Your task to perform on an android device: turn pop-ups off in chrome Image 0: 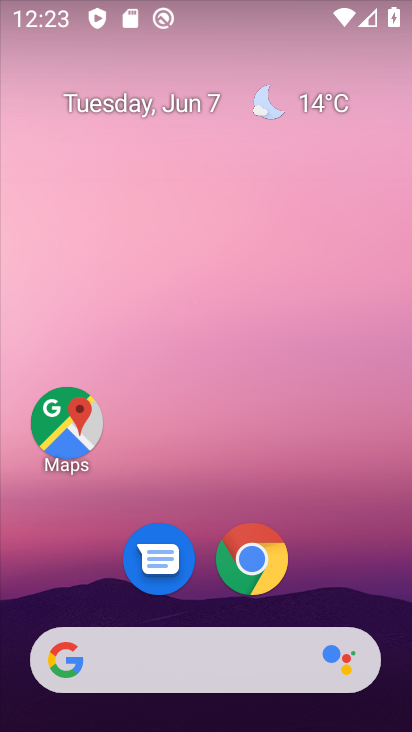
Step 0: click (268, 561)
Your task to perform on an android device: turn pop-ups off in chrome Image 1: 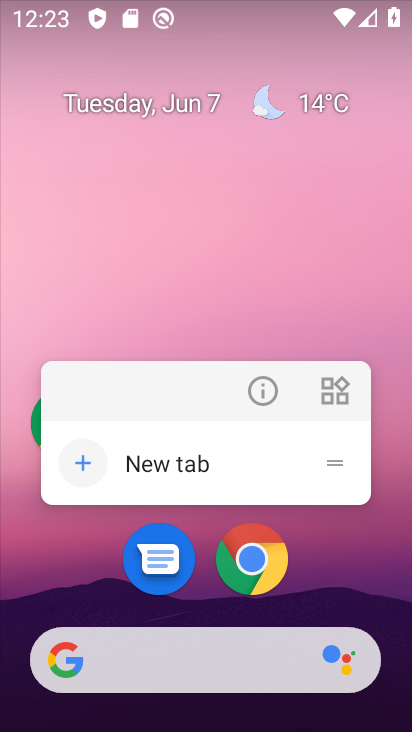
Step 1: click (264, 564)
Your task to perform on an android device: turn pop-ups off in chrome Image 2: 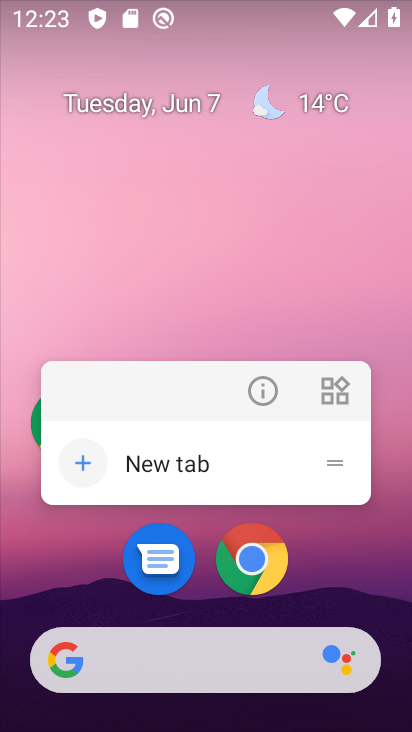
Step 2: click (261, 564)
Your task to perform on an android device: turn pop-ups off in chrome Image 3: 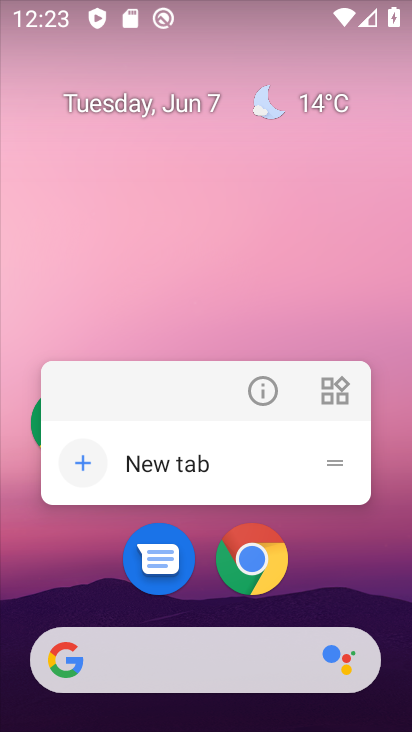
Step 3: click (261, 564)
Your task to perform on an android device: turn pop-ups off in chrome Image 4: 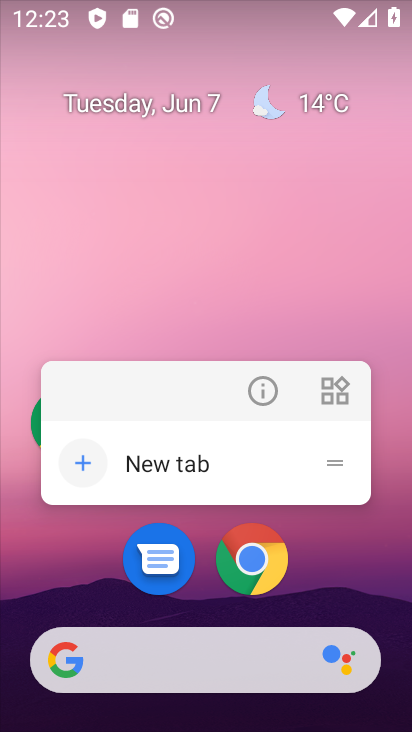
Step 4: click (260, 563)
Your task to perform on an android device: turn pop-ups off in chrome Image 5: 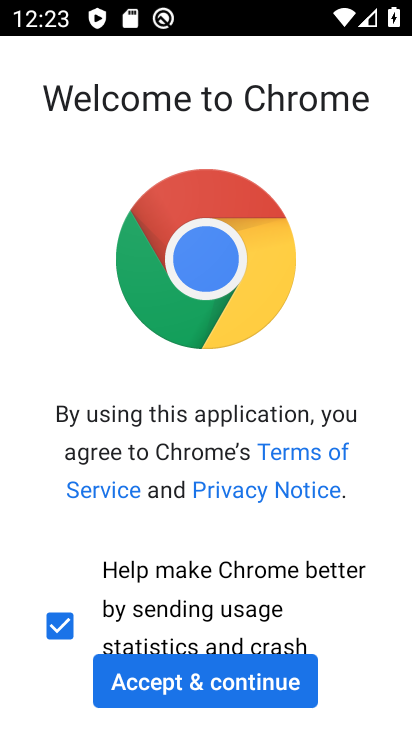
Step 5: click (246, 691)
Your task to perform on an android device: turn pop-ups off in chrome Image 6: 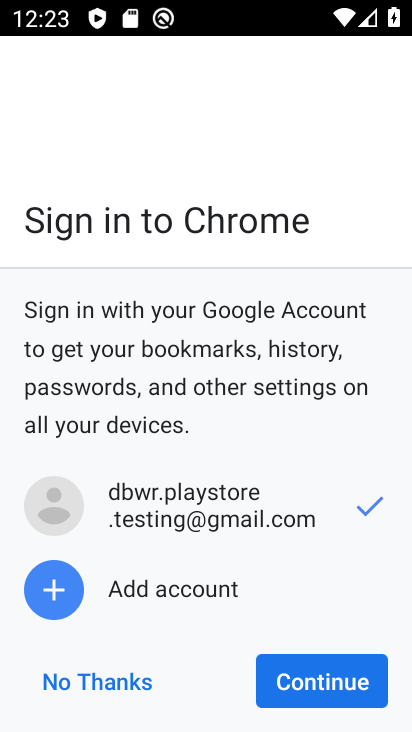
Step 6: click (299, 692)
Your task to perform on an android device: turn pop-ups off in chrome Image 7: 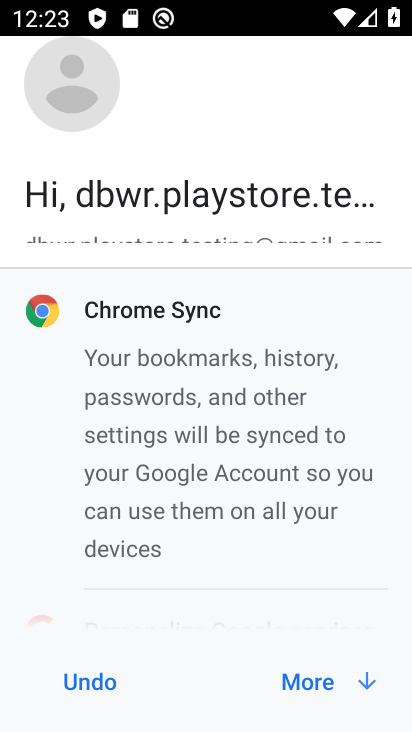
Step 7: click (318, 693)
Your task to perform on an android device: turn pop-ups off in chrome Image 8: 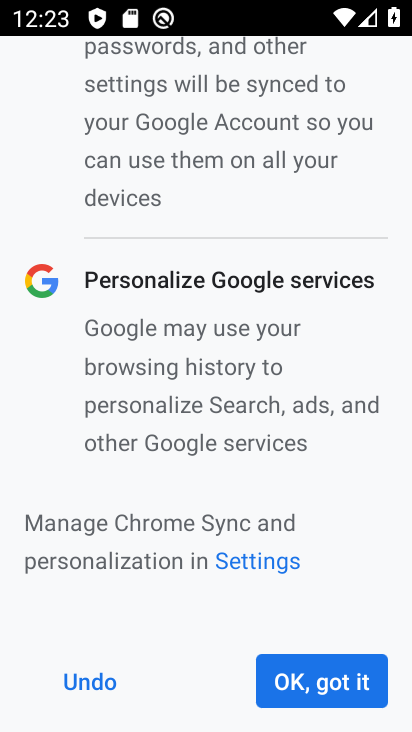
Step 8: click (318, 693)
Your task to perform on an android device: turn pop-ups off in chrome Image 9: 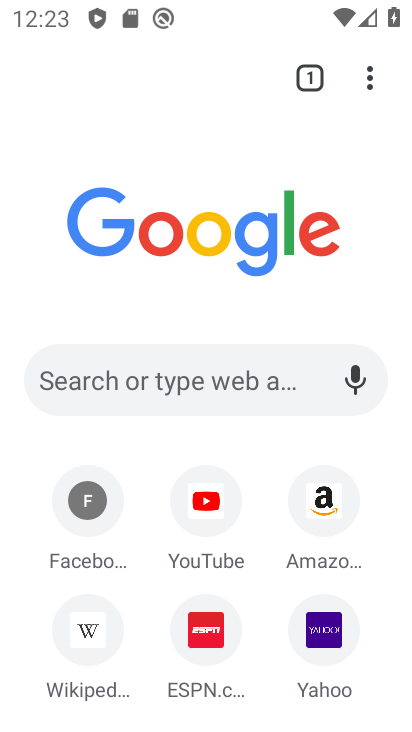
Step 9: drag from (386, 68) to (249, 618)
Your task to perform on an android device: turn pop-ups off in chrome Image 10: 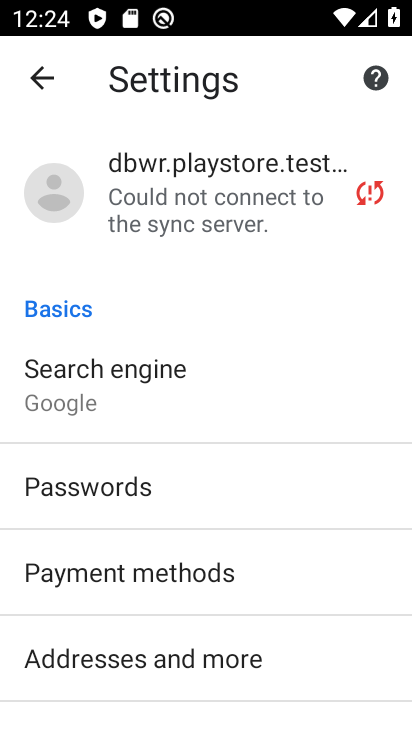
Step 10: drag from (149, 629) to (285, 240)
Your task to perform on an android device: turn pop-ups off in chrome Image 11: 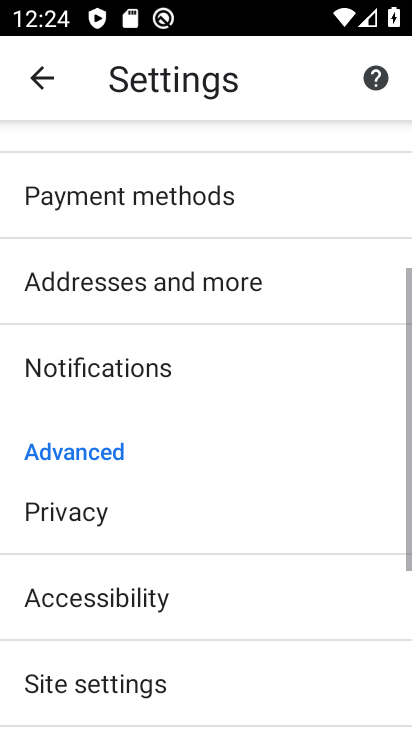
Step 11: drag from (155, 623) to (205, 430)
Your task to perform on an android device: turn pop-ups off in chrome Image 12: 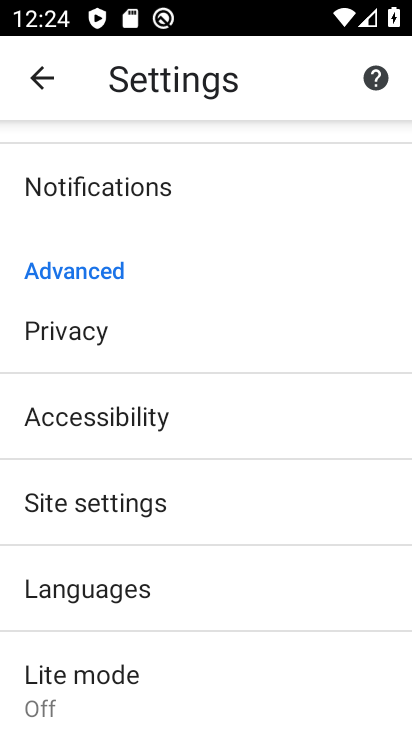
Step 12: click (154, 516)
Your task to perform on an android device: turn pop-ups off in chrome Image 13: 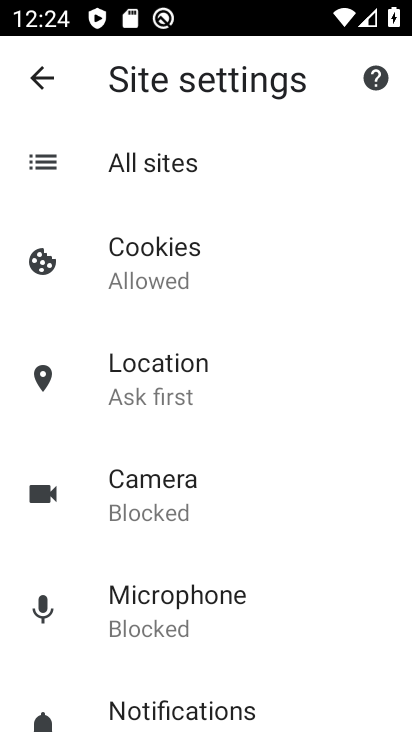
Step 13: drag from (178, 638) to (231, 409)
Your task to perform on an android device: turn pop-ups off in chrome Image 14: 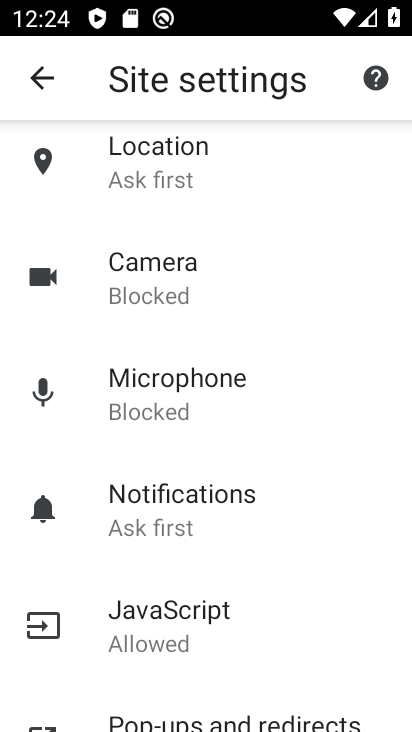
Step 14: drag from (216, 666) to (296, 338)
Your task to perform on an android device: turn pop-ups off in chrome Image 15: 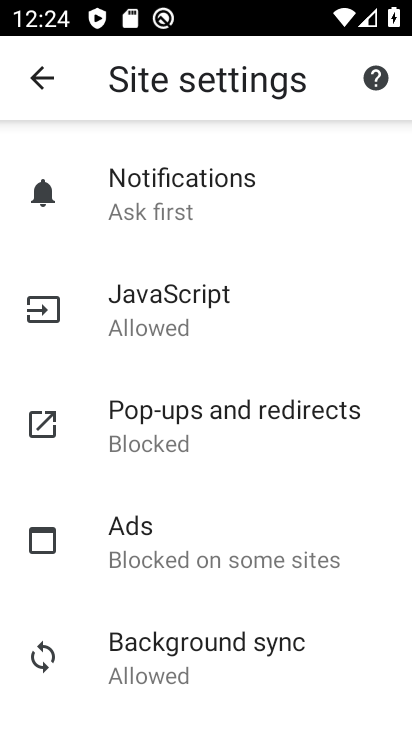
Step 15: click (230, 468)
Your task to perform on an android device: turn pop-ups off in chrome Image 16: 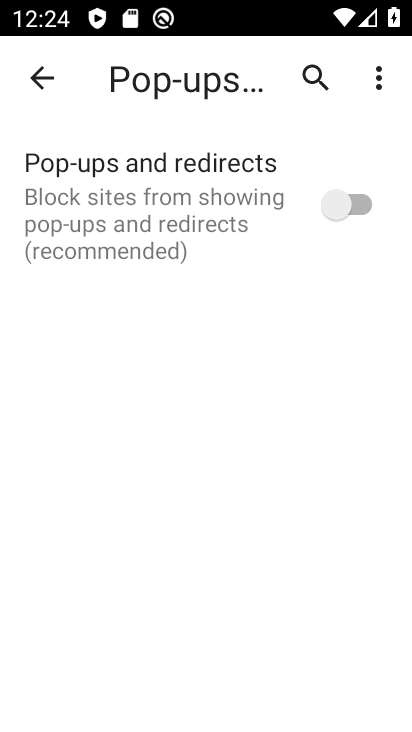
Step 16: task complete